Your task to perform on an android device: Open eBay Image 0: 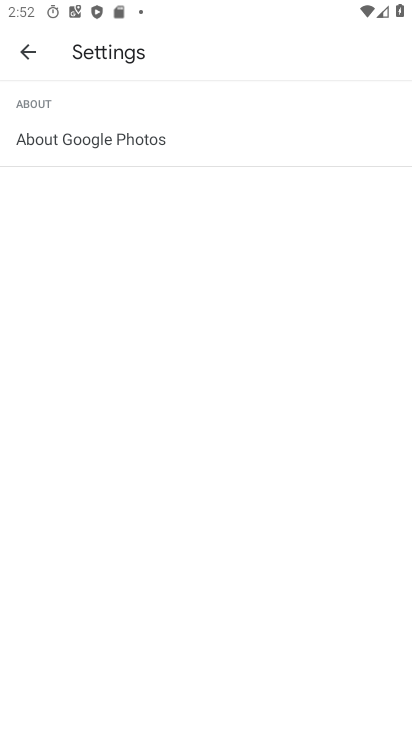
Step 0: press home button
Your task to perform on an android device: Open eBay Image 1: 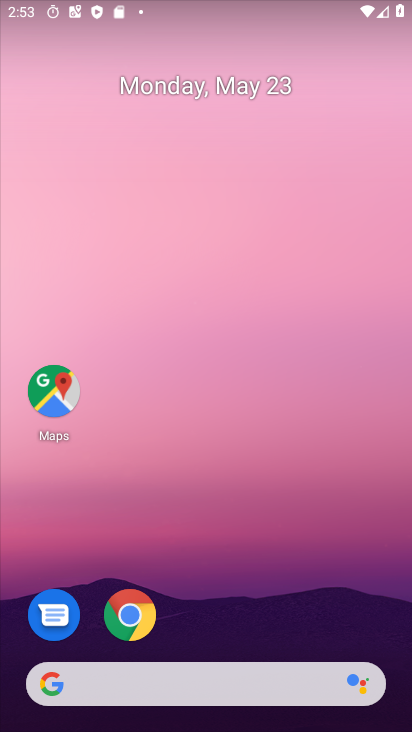
Step 1: click (135, 615)
Your task to perform on an android device: Open eBay Image 2: 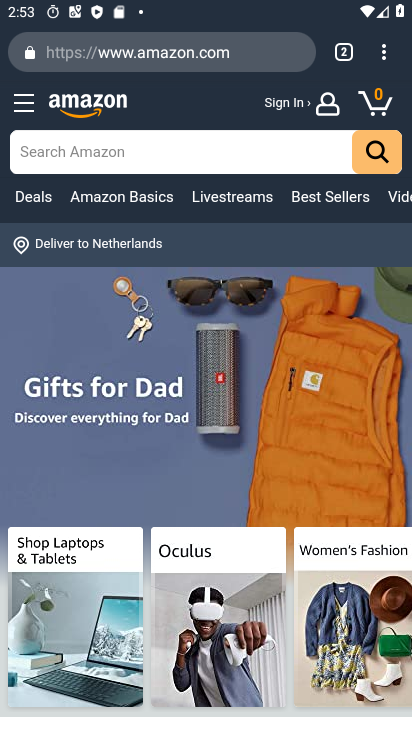
Step 2: click (85, 54)
Your task to perform on an android device: Open eBay Image 3: 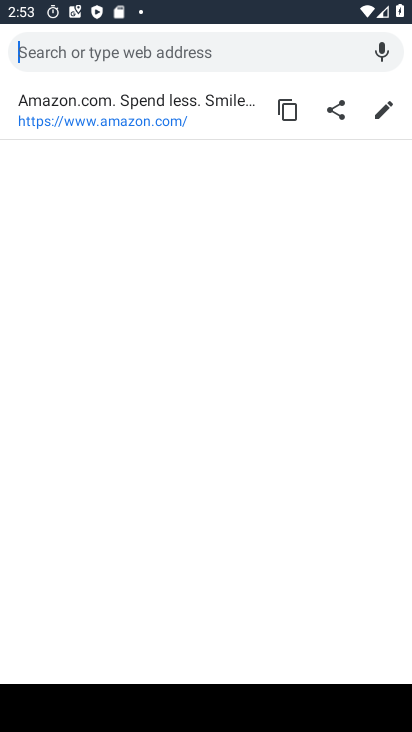
Step 3: type "ebay"
Your task to perform on an android device: Open eBay Image 4: 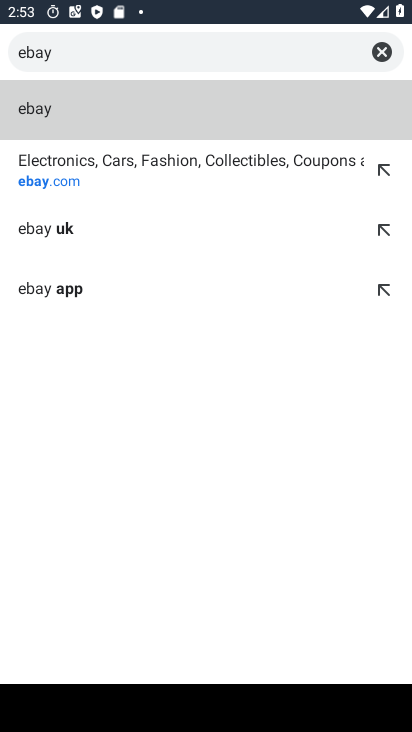
Step 4: click (38, 106)
Your task to perform on an android device: Open eBay Image 5: 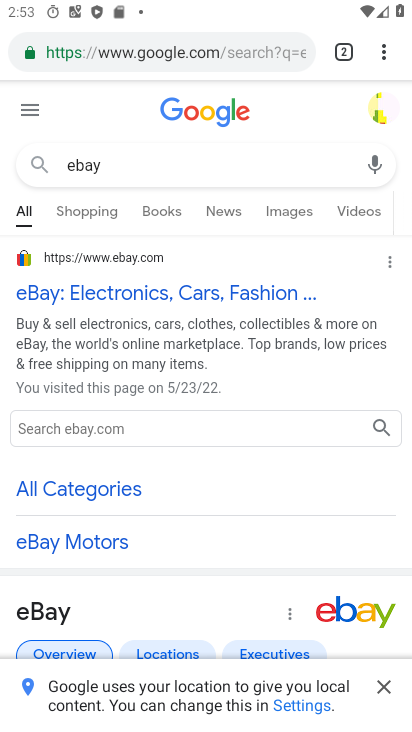
Step 5: click (30, 298)
Your task to perform on an android device: Open eBay Image 6: 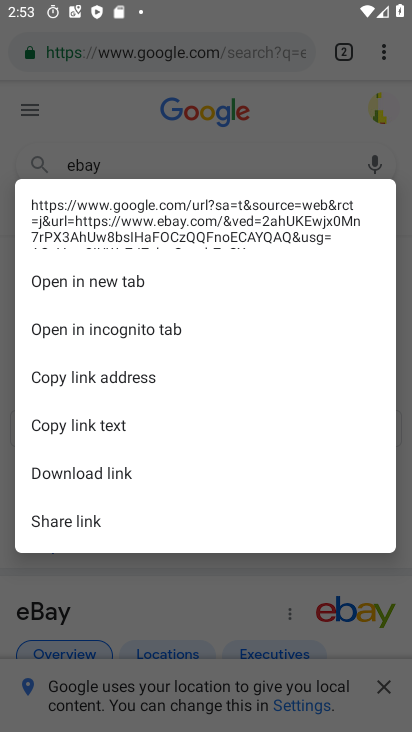
Step 6: click (404, 575)
Your task to perform on an android device: Open eBay Image 7: 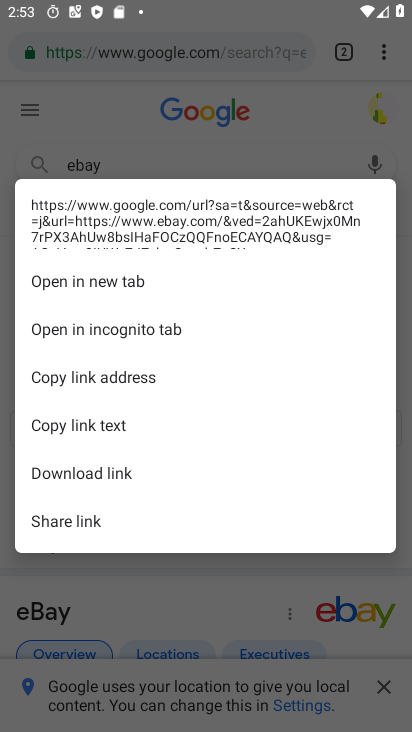
Step 7: click (71, 166)
Your task to perform on an android device: Open eBay Image 8: 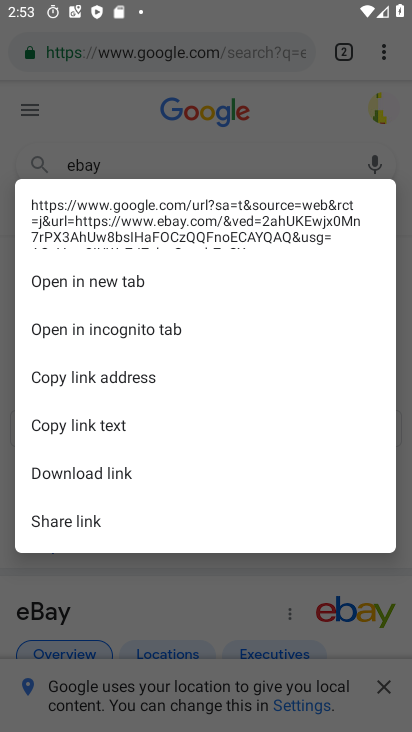
Step 8: click (152, 166)
Your task to perform on an android device: Open eBay Image 9: 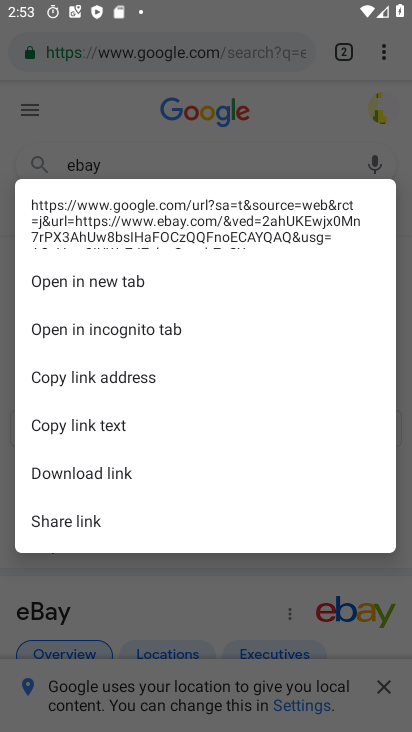
Step 9: click (92, 147)
Your task to perform on an android device: Open eBay Image 10: 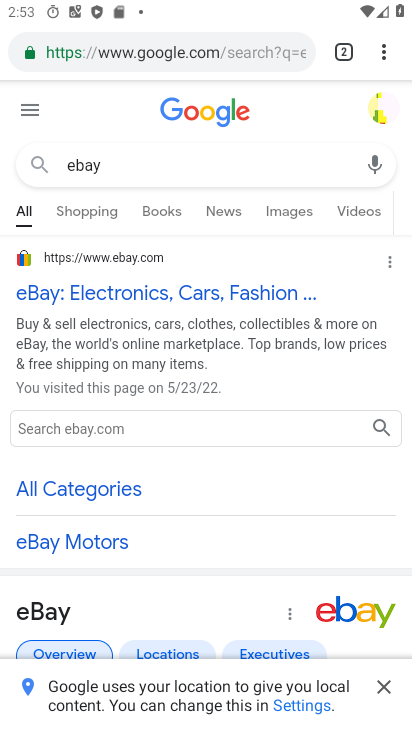
Step 10: click (46, 262)
Your task to perform on an android device: Open eBay Image 11: 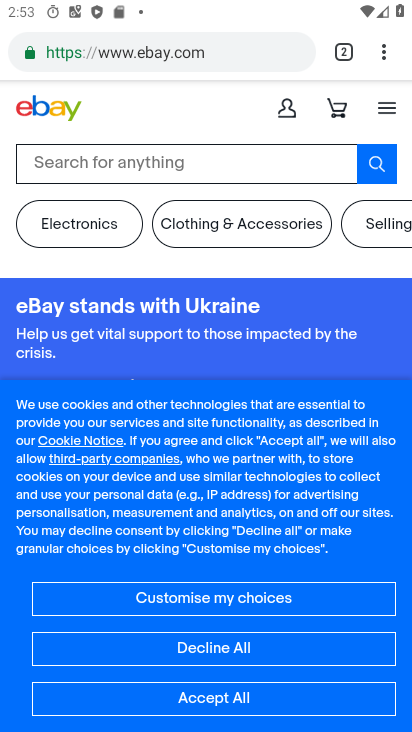
Step 11: task complete